Your task to perform on an android device: star an email in the gmail app Image 0: 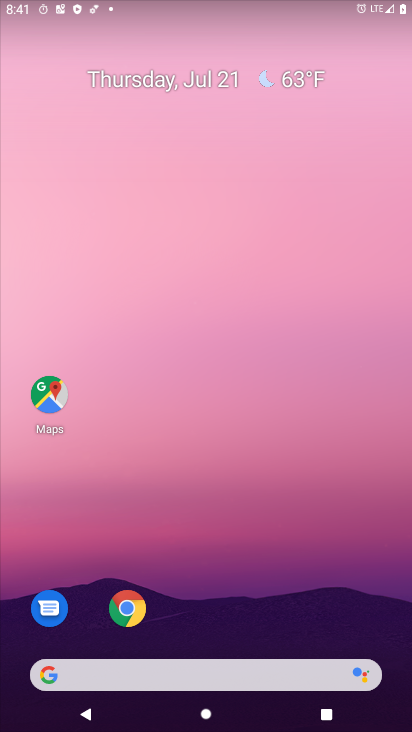
Step 0: drag from (348, 623) to (230, 14)
Your task to perform on an android device: star an email in the gmail app Image 1: 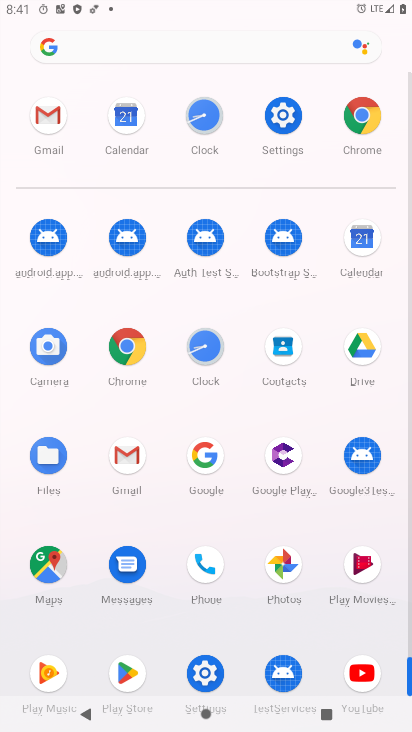
Step 1: click (128, 454)
Your task to perform on an android device: star an email in the gmail app Image 2: 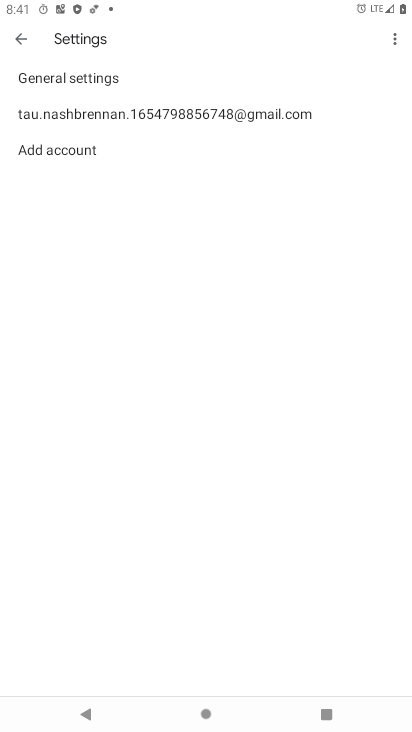
Step 2: click (51, 117)
Your task to perform on an android device: star an email in the gmail app Image 3: 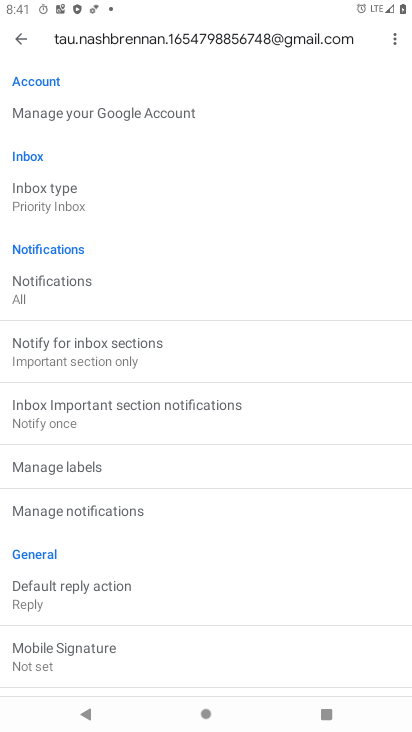
Step 3: click (9, 48)
Your task to perform on an android device: star an email in the gmail app Image 4: 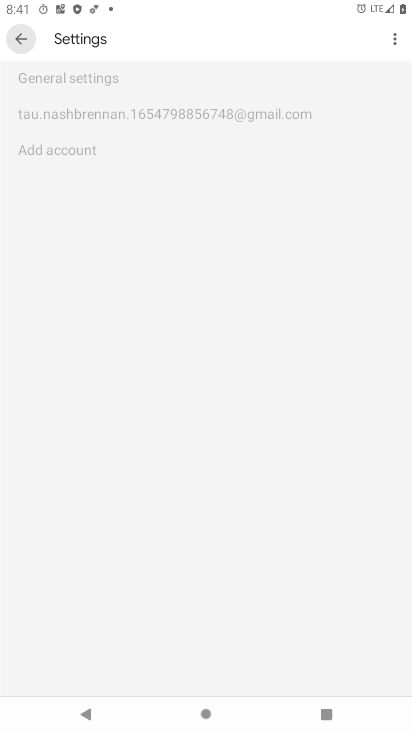
Step 4: click (9, 48)
Your task to perform on an android device: star an email in the gmail app Image 5: 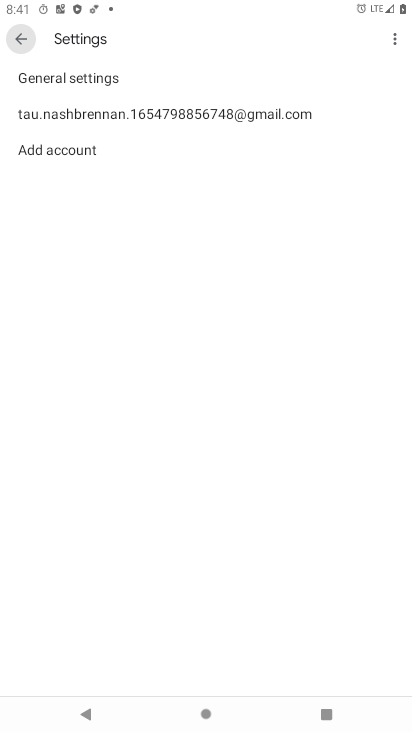
Step 5: click (9, 48)
Your task to perform on an android device: star an email in the gmail app Image 6: 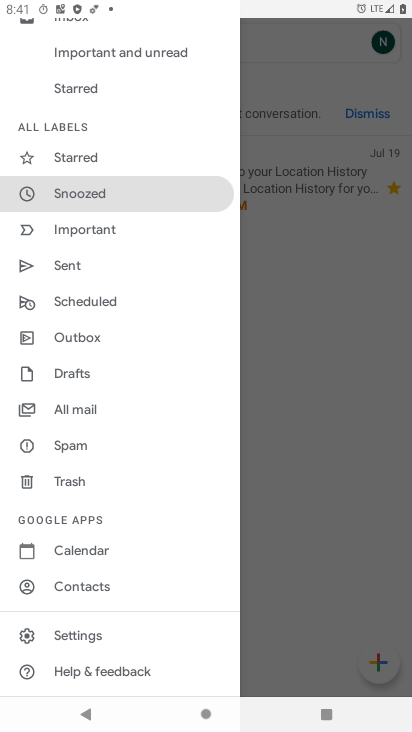
Step 6: click (328, 399)
Your task to perform on an android device: star an email in the gmail app Image 7: 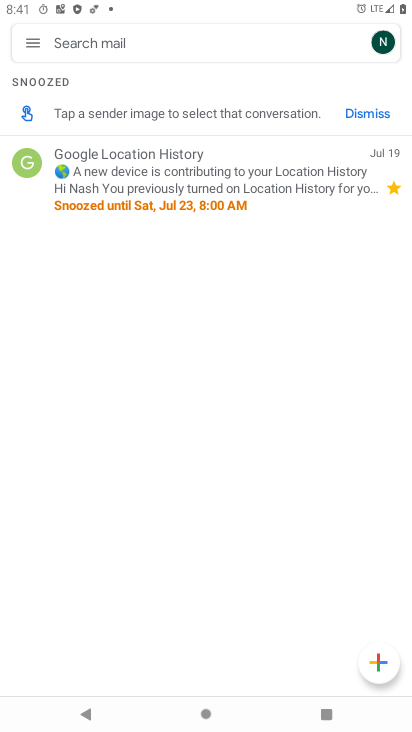
Step 7: task complete